Your task to perform on an android device: Open sound settings Image 0: 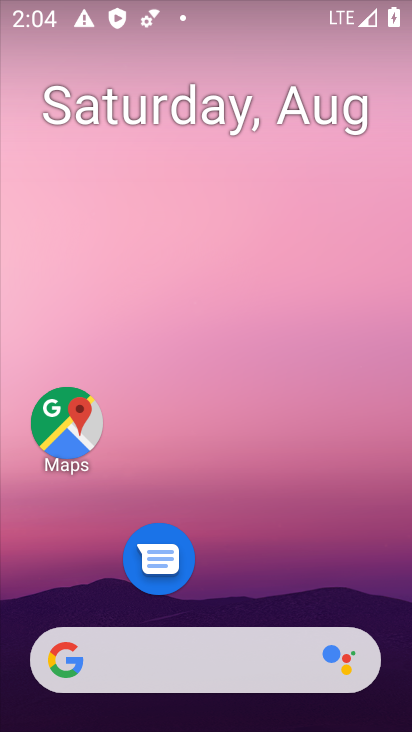
Step 0: drag from (222, 575) to (180, 157)
Your task to perform on an android device: Open sound settings Image 1: 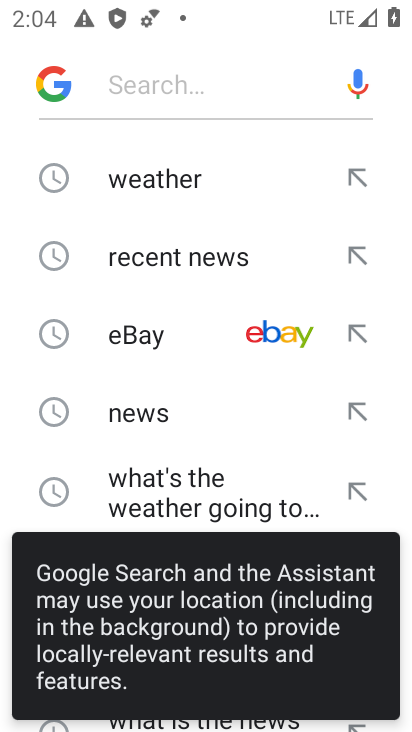
Step 1: press back button
Your task to perform on an android device: Open sound settings Image 2: 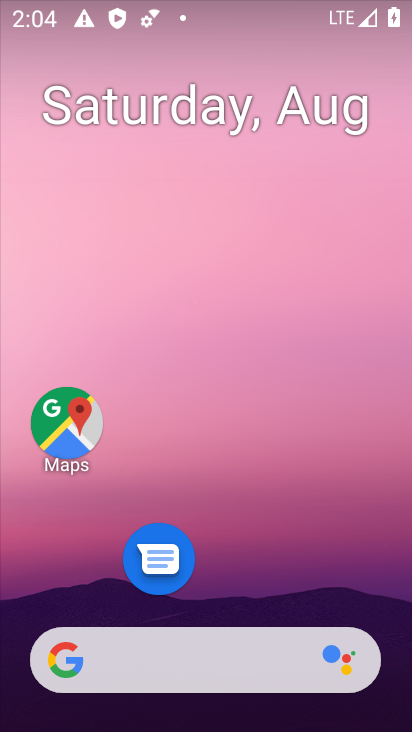
Step 2: drag from (229, 600) to (187, 107)
Your task to perform on an android device: Open sound settings Image 3: 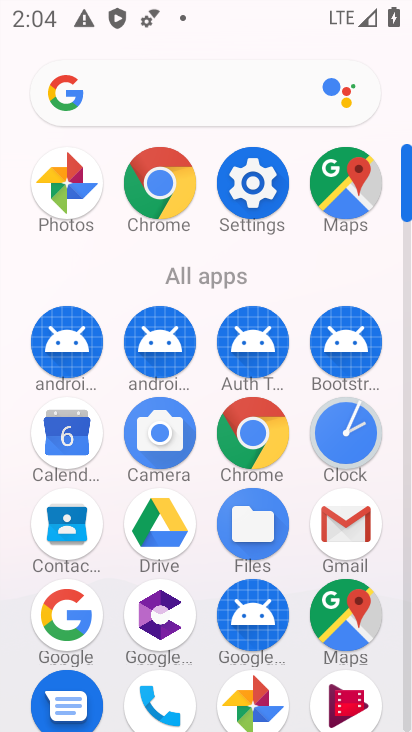
Step 3: click (239, 169)
Your task to perform on an android device: Open sound settings Image 4: 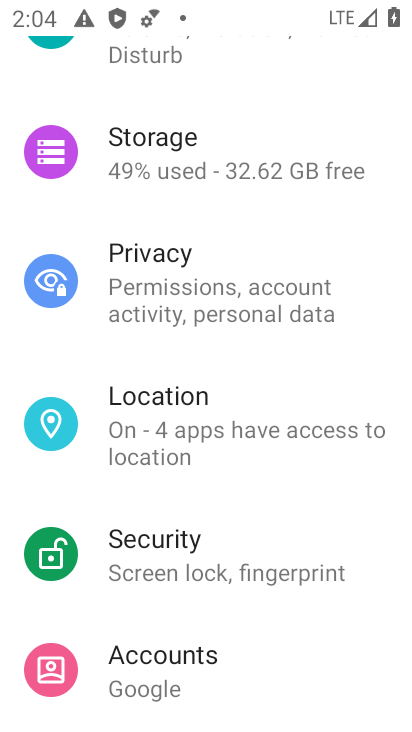
Step 4: drag from (73, 179) to (71, 420)
Your task to perform on an android device: Open sound settings Image 5: 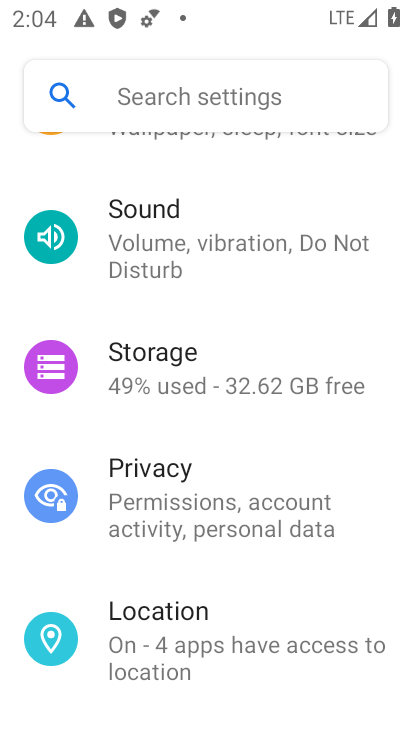
Step 5: click (142, 279)
Your task to perform on an android device: Open sound settings Image 6: 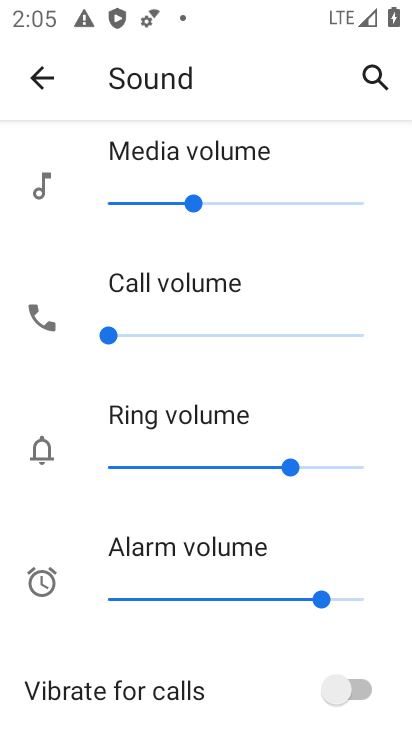
Step 6: task complete